Your task to perform on an android device: see tabs open on other devices in the chrome app Image 0: 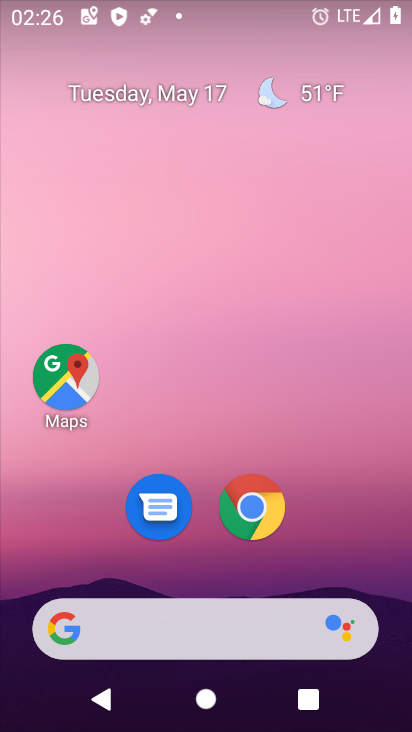
Step 0: click (254, 509)
Your task to perform on an android device: see tabs open on other devices in the chrome app Image 1: 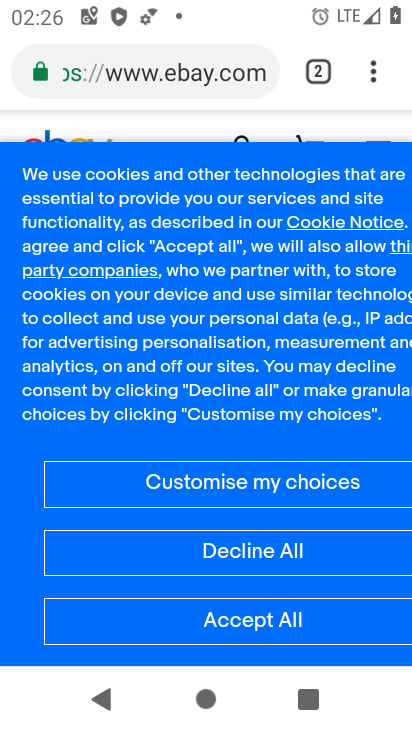
Step 1: click (369, 58)
Your task to perform on an android device: see tabs open on other devices in the chrome app Image 2: 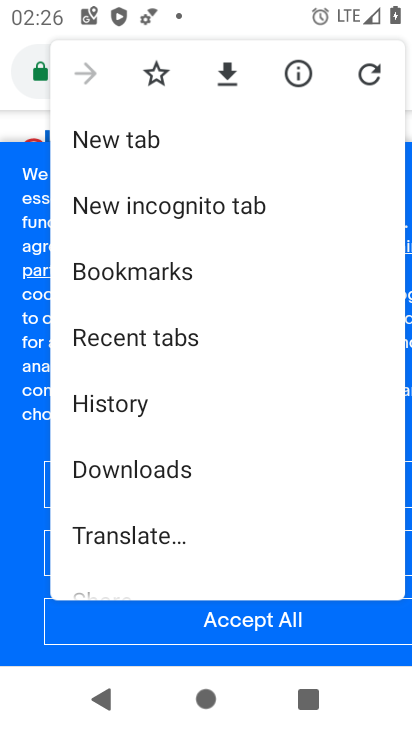
Step 2: click (160, 338)
Your task to perform on an android device: see tabs open on other devices in the chrome app Image 3: 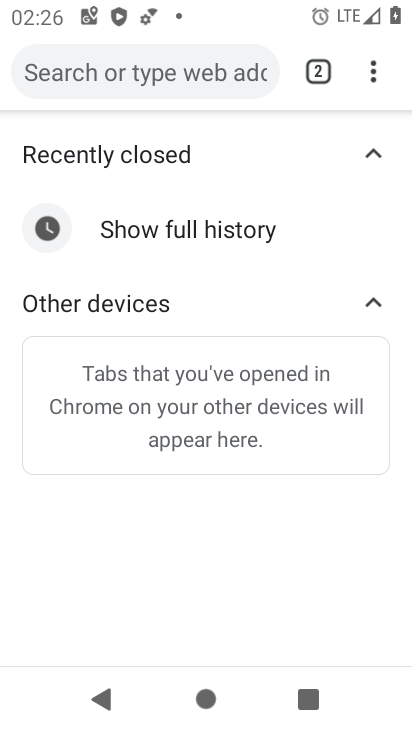
Step 3: task complete